Your task to perform on an android device: What's the weather going to be this weekend? Image 0: 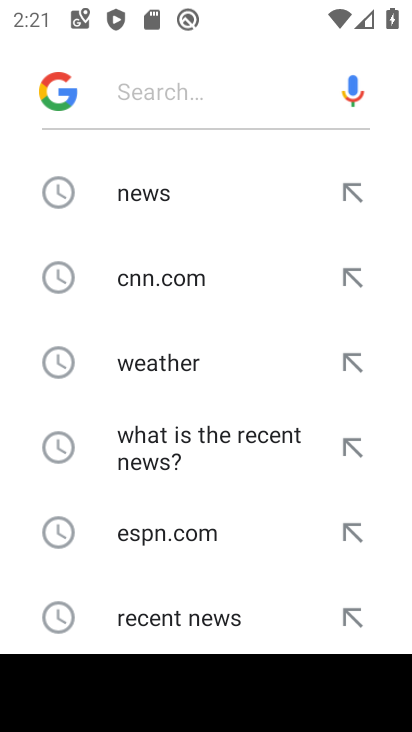
Step 0: press home button
Your task to perform on an android device: What's the weather going to be this weekend? Image 1: 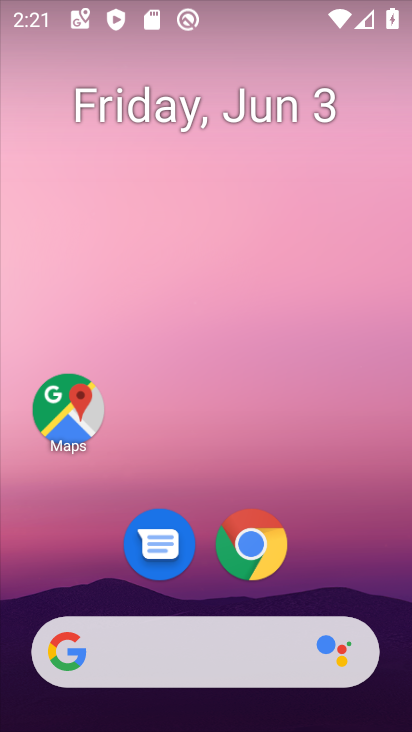
Step 1: drag from (369, 545) to (354, 237)
Your task to perform on an android device: What's the weather going to be this weekend? Image 2: 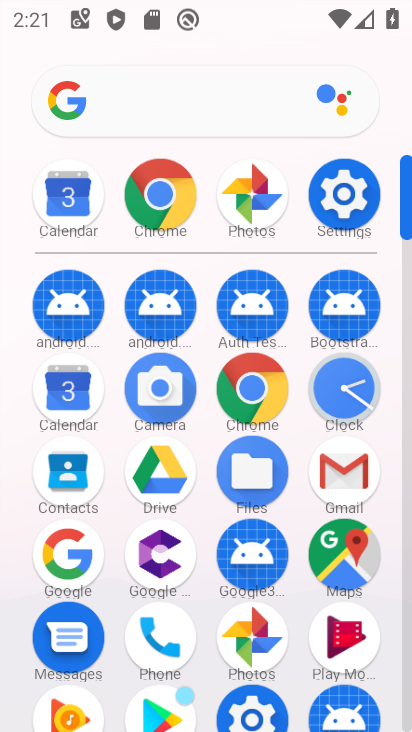
Step 2: click (268, 399)
Your task to perform on an android device: What's the weather going to be this weekend? Image 3: 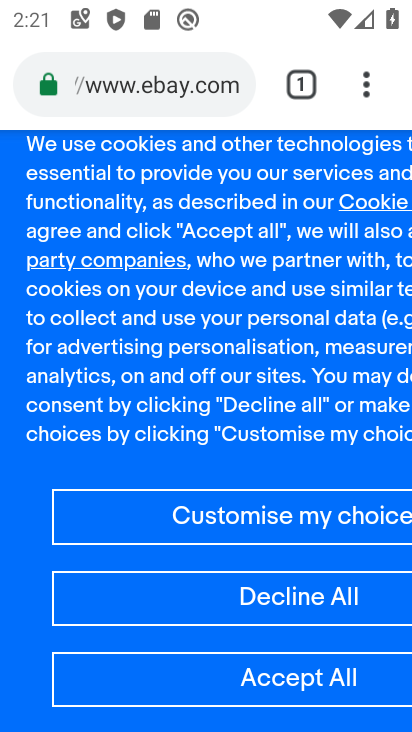
Step 3: click (156, 89)
Your task to perform on an android device: What's the weather going to be this weekend? Image 4: 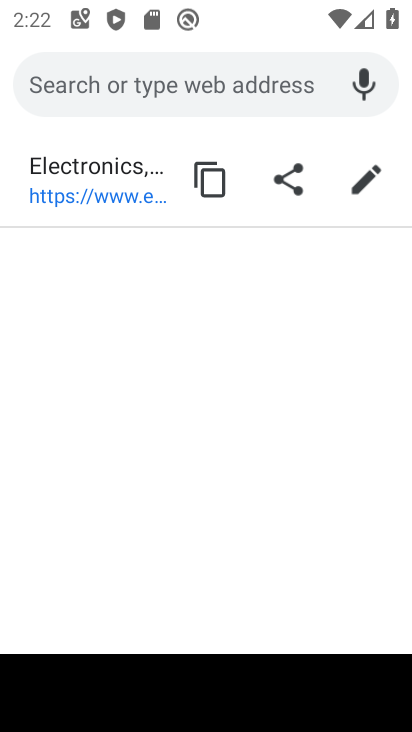
Step 4: click (206, 88)
Your task to perform on an android device: What's the weather going to be this weekend? Image 5: 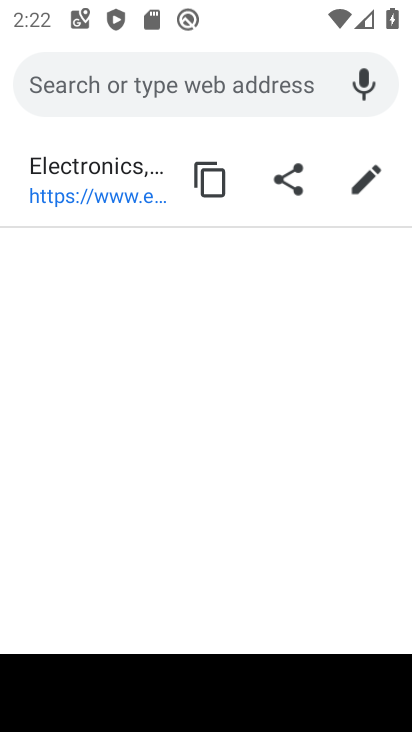
Step 5: type "what's the weather going to be this weekend "
Your task to perform on an android device: What's the weather going to be this weekend? Image 6: 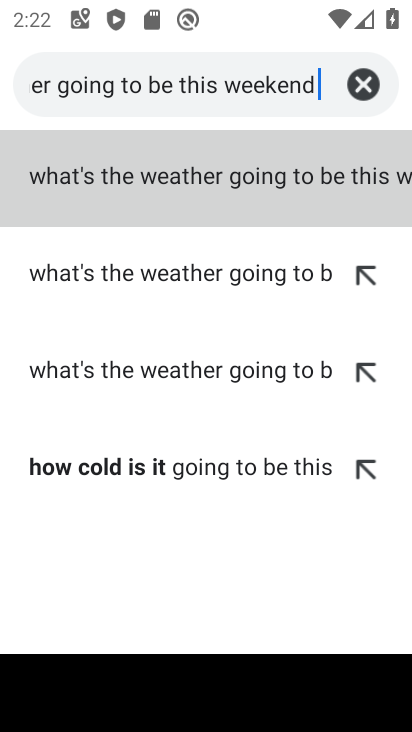
Step 6: click (142, 153)
Your task to perform on an android device: What's the weather going to be this weekend? Image 7: 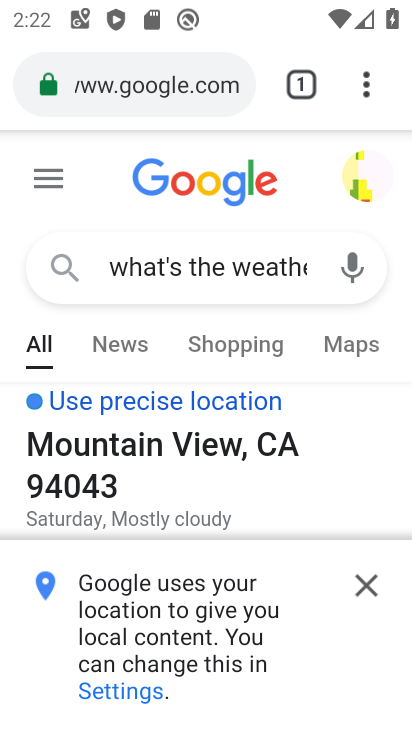
Step 7: click (376, 579)
Your task to perform on an android device: What's the weather going to be this weekend? Image 8: 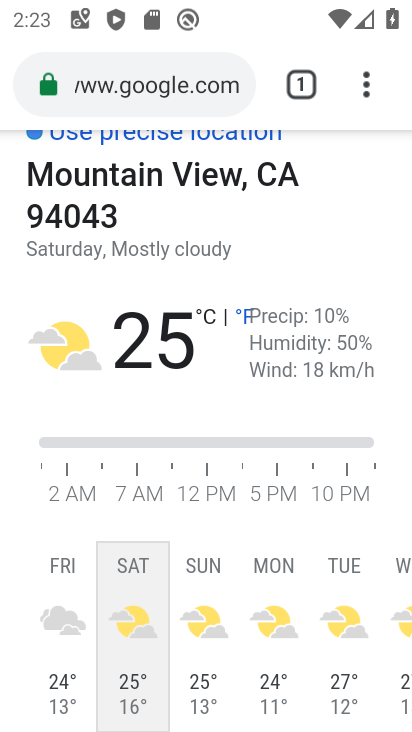
Step 8: task complete